Your task to perform on an android device: Add dell alienware to the cart on costco, then select checkout. Image 0: 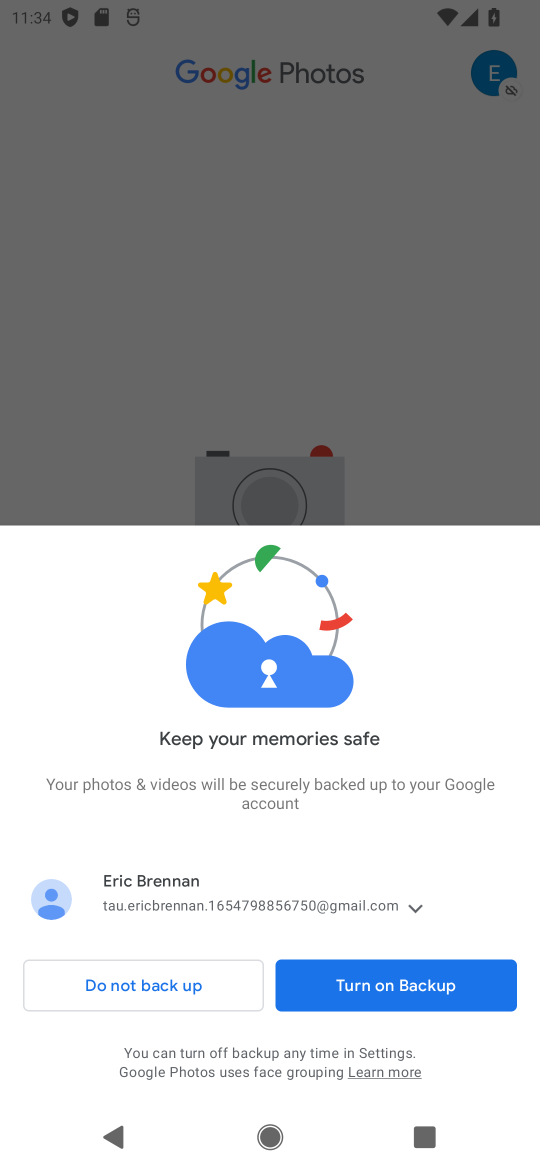
Step 0: press home button
Your task to perform on an android device: Add dell alienware to the cart on costco, then select checkout. Image 1: 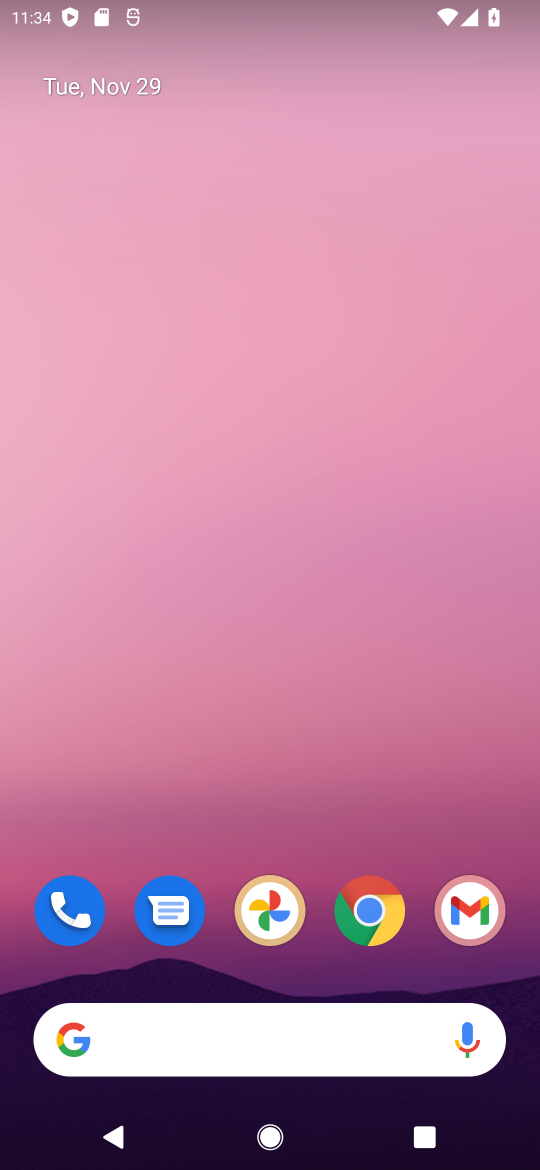
Step 1: click (351, 900)
Your task to perform on an android device: Add dell alienware to the cart on costco, then select checkout. Image 2: 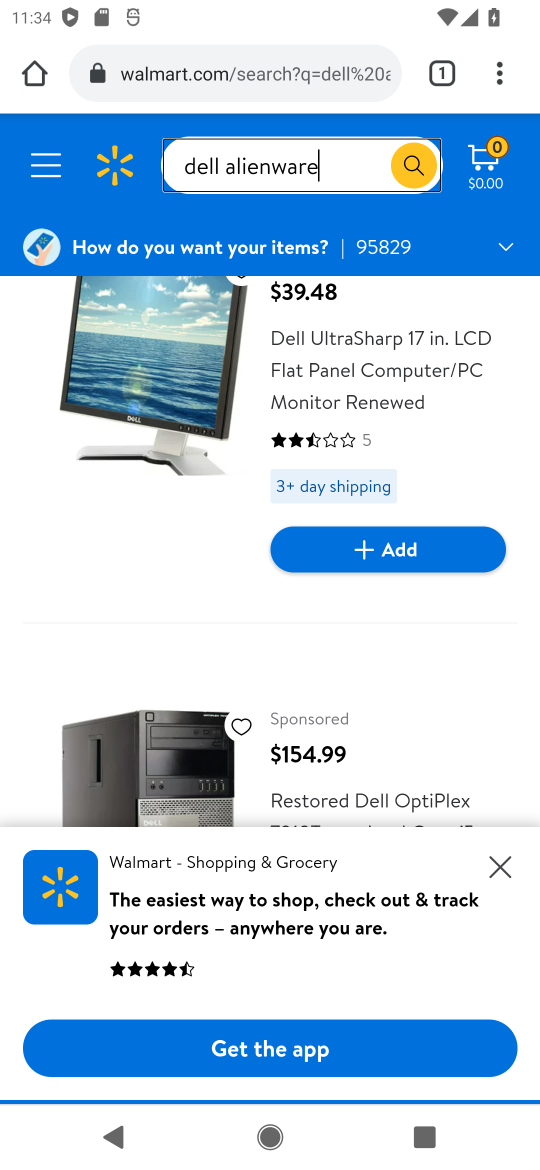
Step 2: click (228, 77)
Your task to perform on an android device: Add dell alienware to the cart on costco, then select checkout. Image 3: 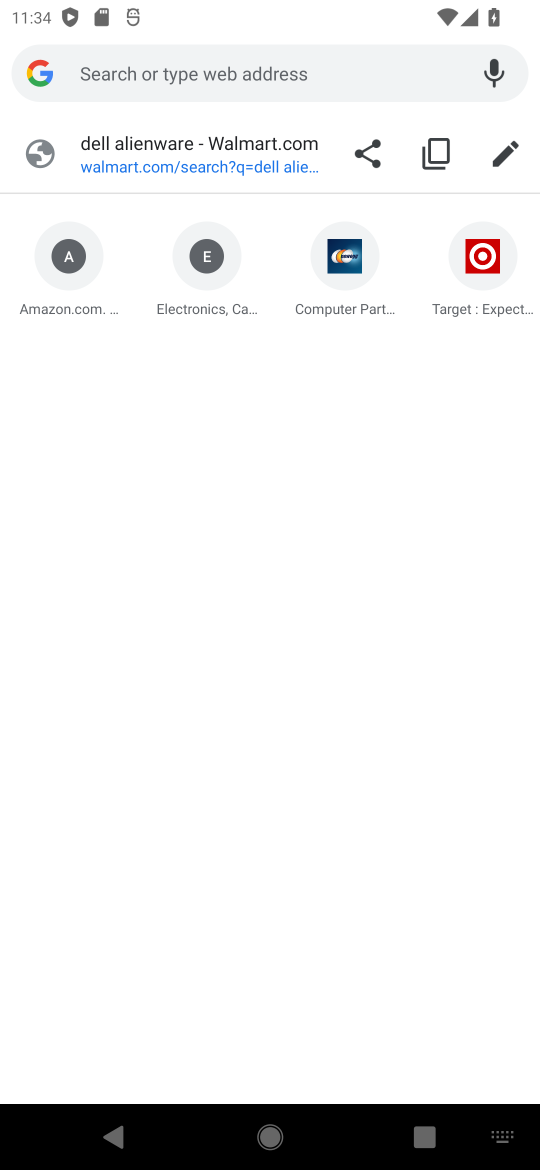
Step 3: type "costco.com"
Your task to perform on an android device: Add dell alienware to the cart on costco, then select checkout. Image 4: 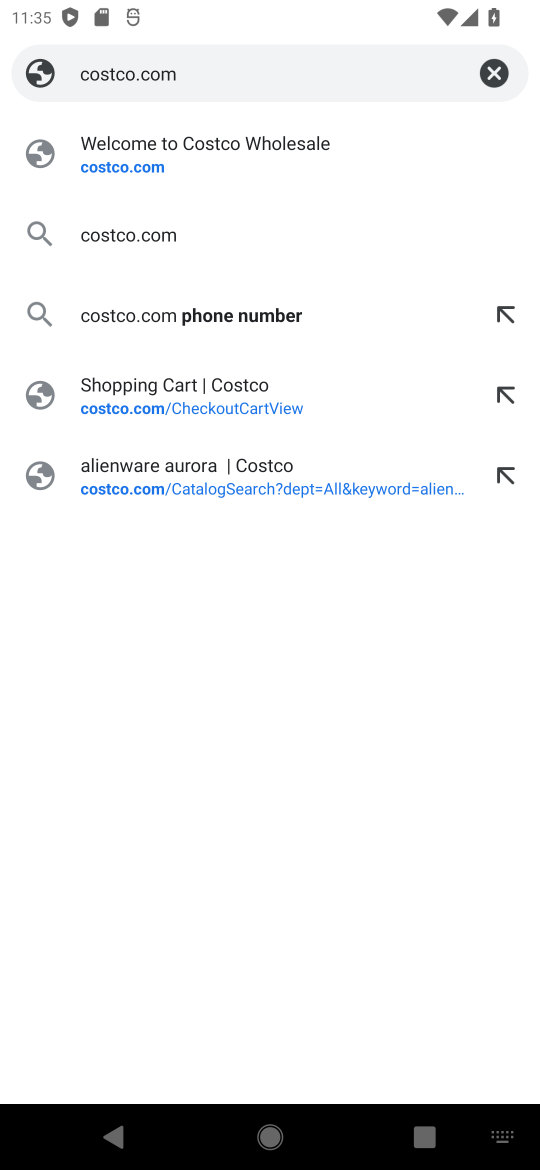
Step 4: click (117, 171)
Your task to perform on an android device: Add dell alienware to the cart on costco, then select checkout. Image 5: 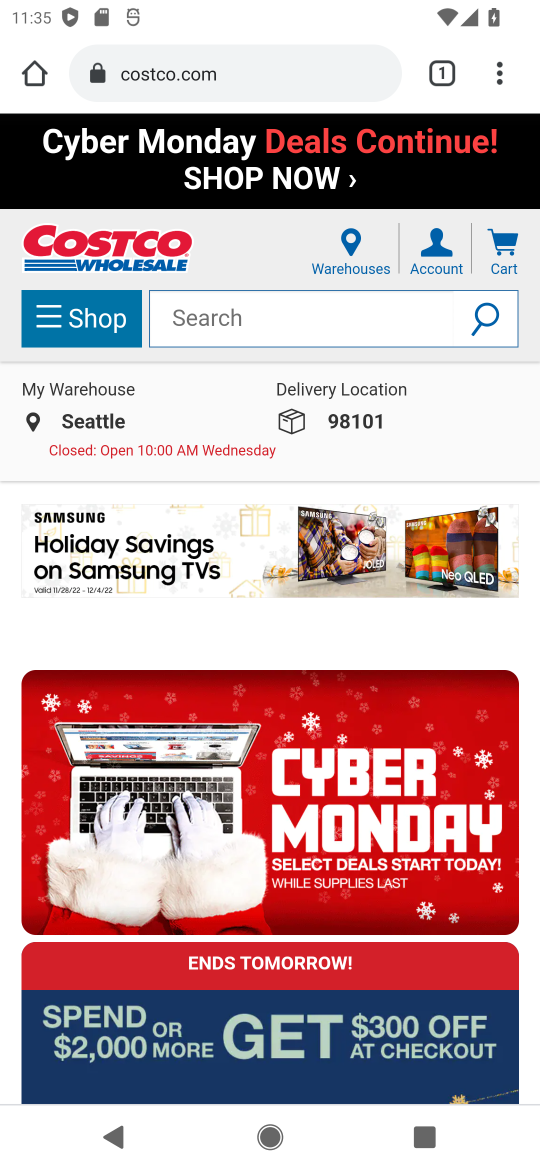
Step 5: click (178, 308)
Your task to perform on an android device: Add dell alienware to the cart on costco, then select checkout. Image 6: 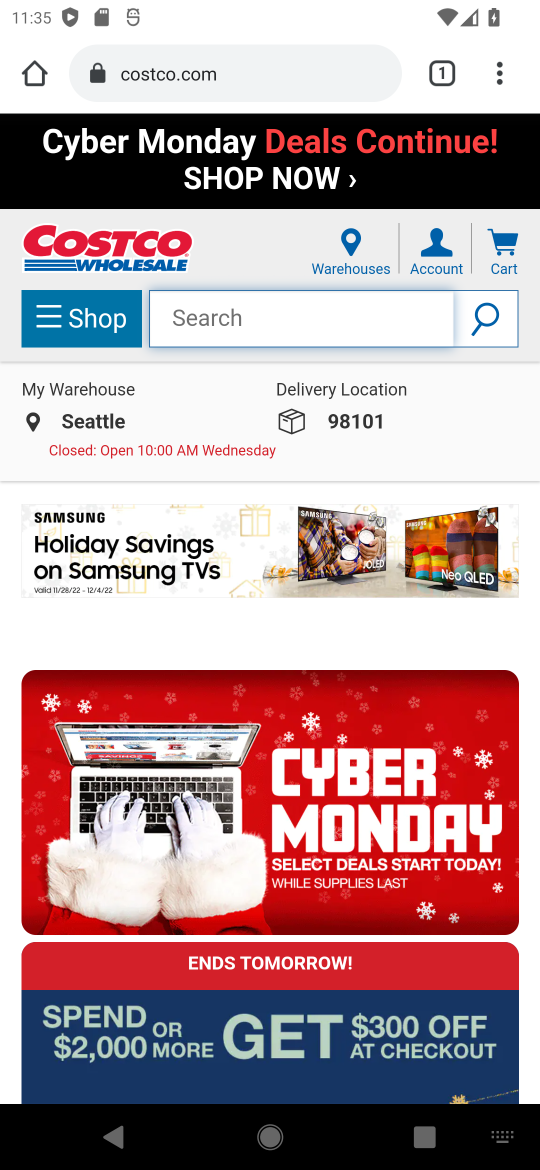
Step 6: type "dell alienware"
Your task to perform on an android device: Add dell alienware to the cart on costco, then select checkout. Image 7: 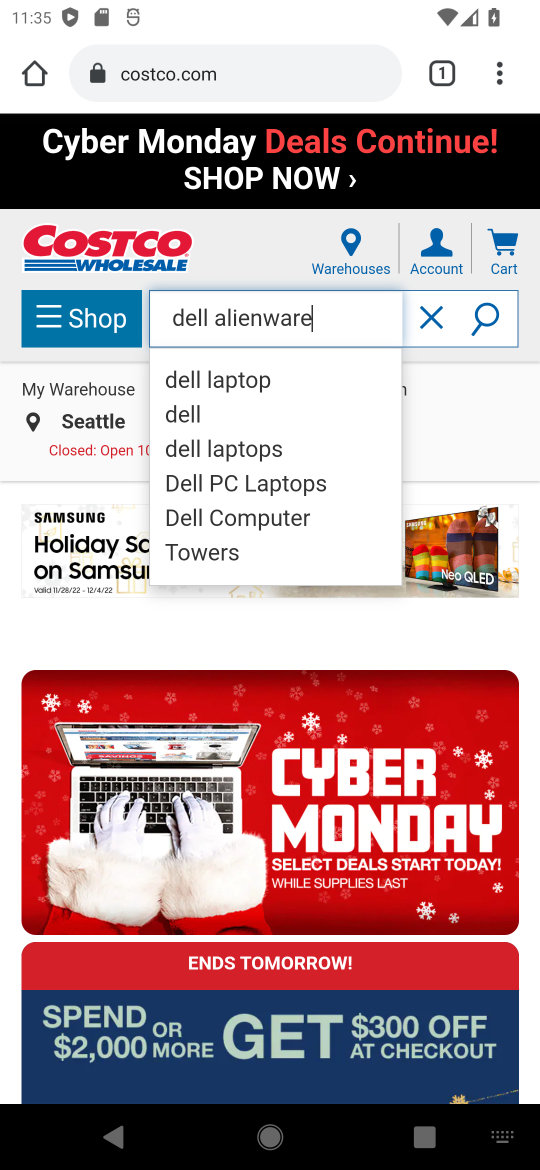
Step 7: click (474, 317)
Your task to perform on an android device: Add dell alienware to the cart on costco, then select checkout. Image 8: 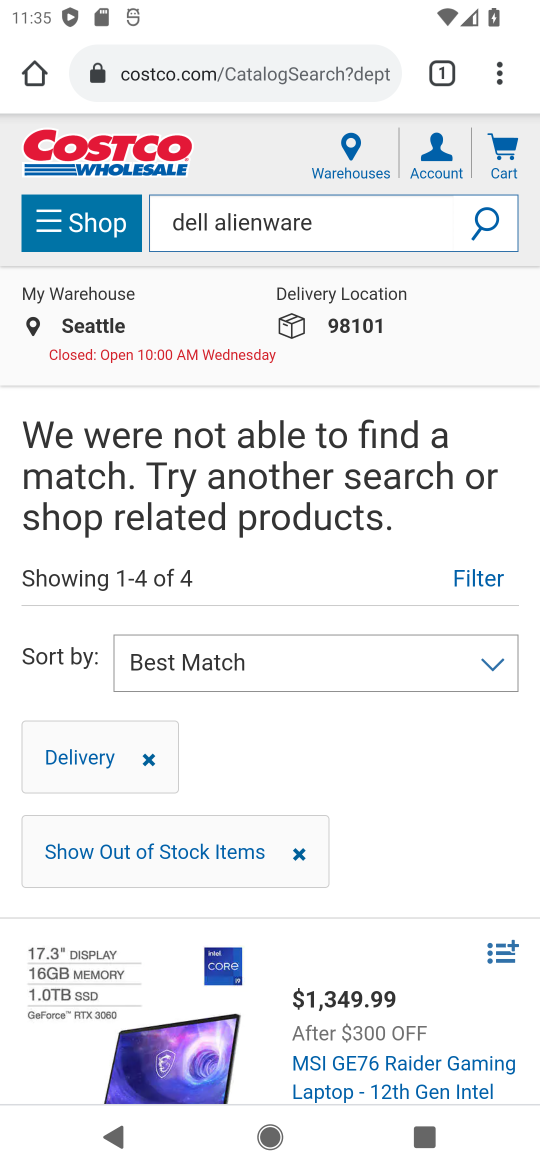
Step 8: task complete